Your task to perform on an android device: Go to location settings Image 0: 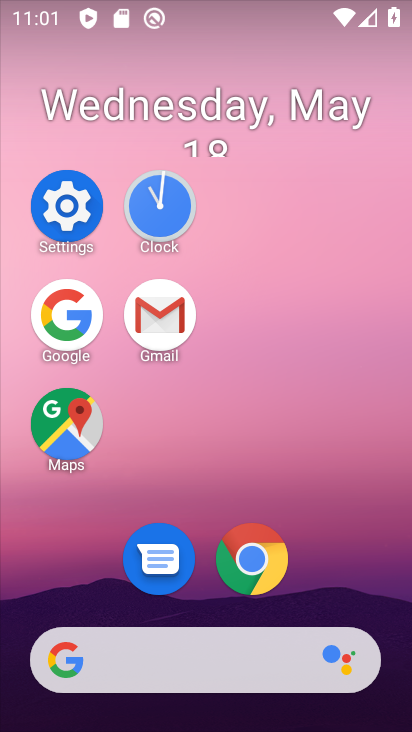
Step 0: click (56, 211)
Your task to perform on an android device: Go to location settings Image 1: 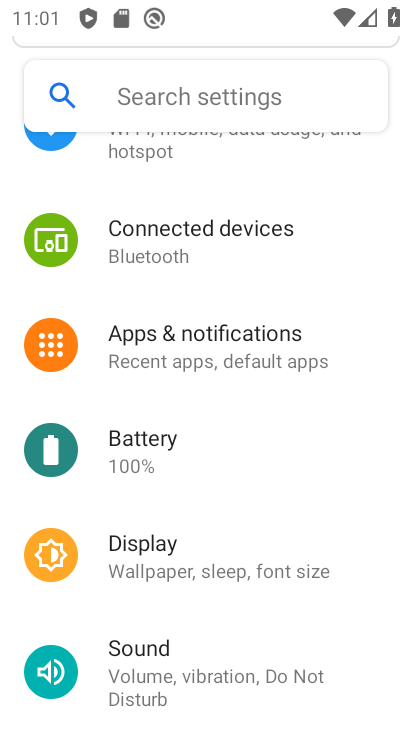
Step 1: drag from (244, 633) to (276, 254)
Your task to perform on an android device: Go to location settings Image 2: 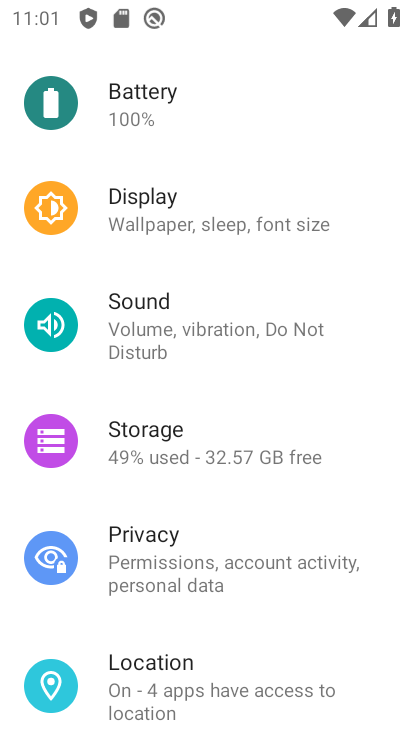
Step 2: click (199, 655)
Your task to perform on an android device: Go to location settings Image 3: 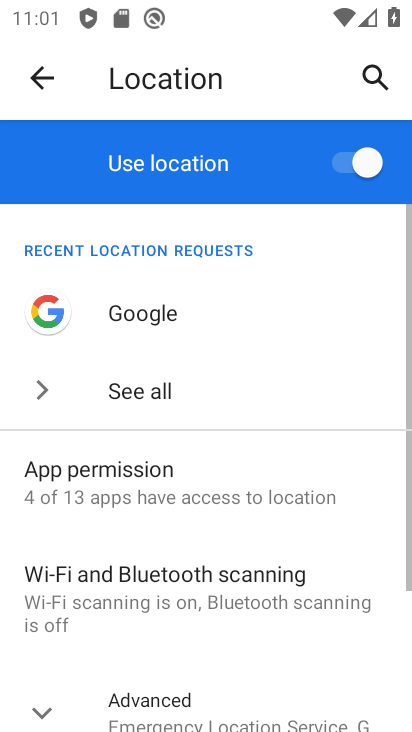
Step 3: task complete